Your task to perform on an android device: Go to sound settings Image 0: 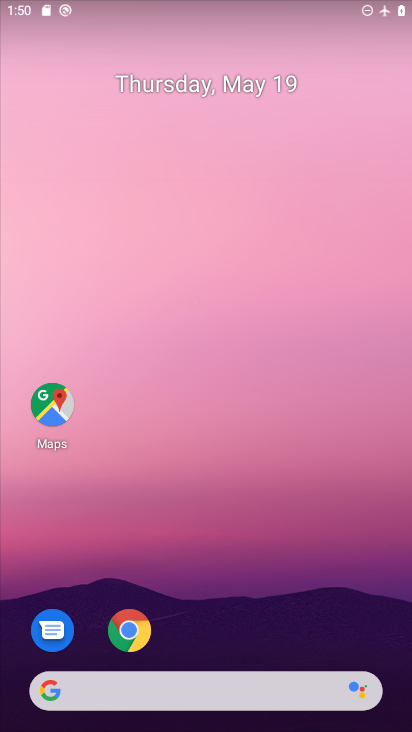
Step 0: drag from (173, 663) to (147, 35)
Your task to perform on an android device: Go to sound settings Image 1: 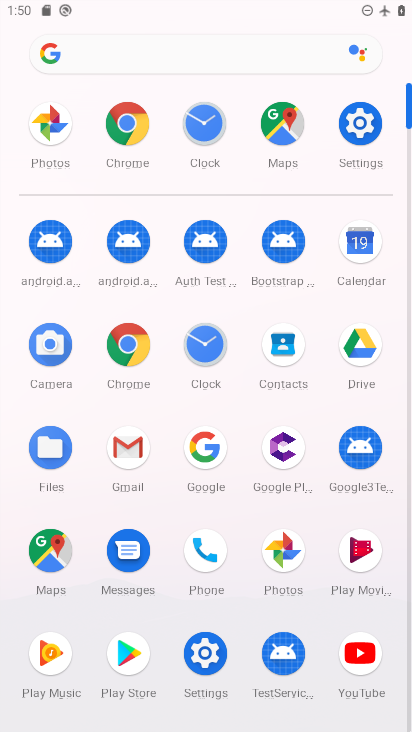
Step 1: click (348, 138)
Your task to perform on an android device: Go to sound settings Image 2: 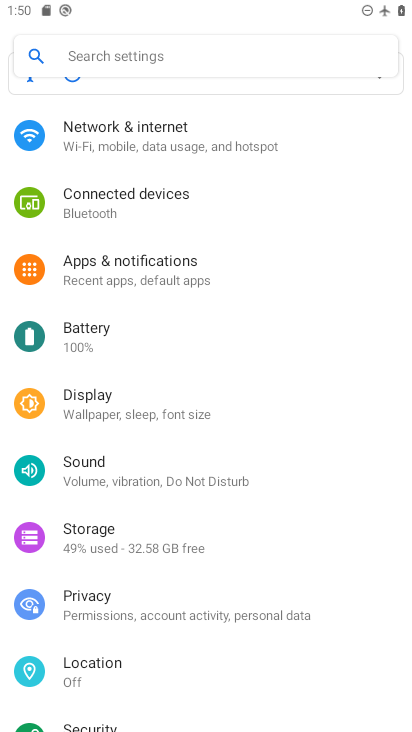
Step 2: click (99, 478)
Your task to perform on an android device: Go to sound settings Image 3: 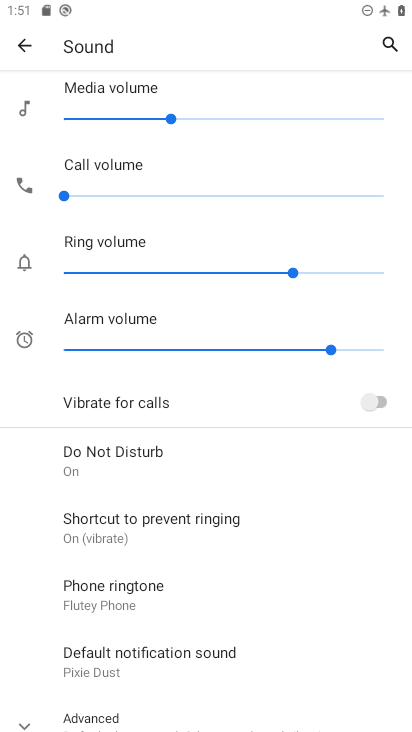
Step 3: task complete